Your task to perform on an android device: What's the weather today? Image 0: 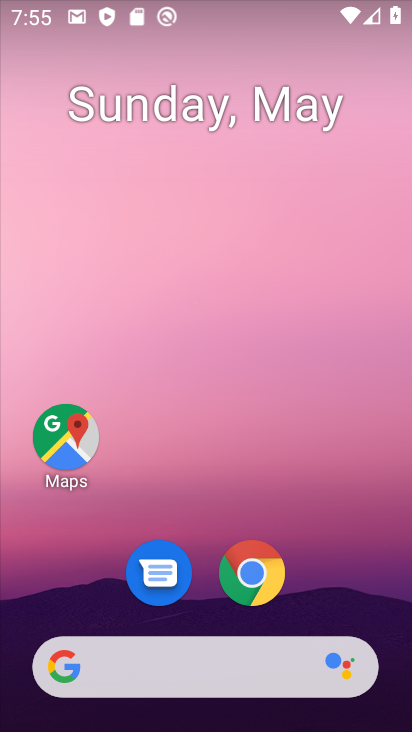
Step 0: click (195, 654)
Your task to perform on an android device: What's the weather today? Image 1: 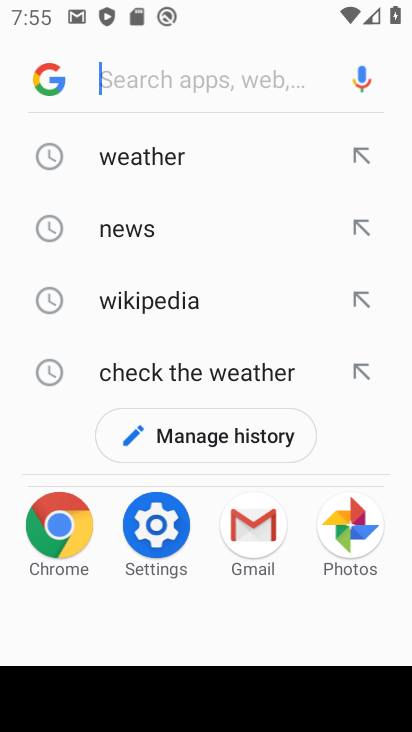
Step 1: click (120, 149)
Your task to perform on an android device: What's the weather today? Image 2: 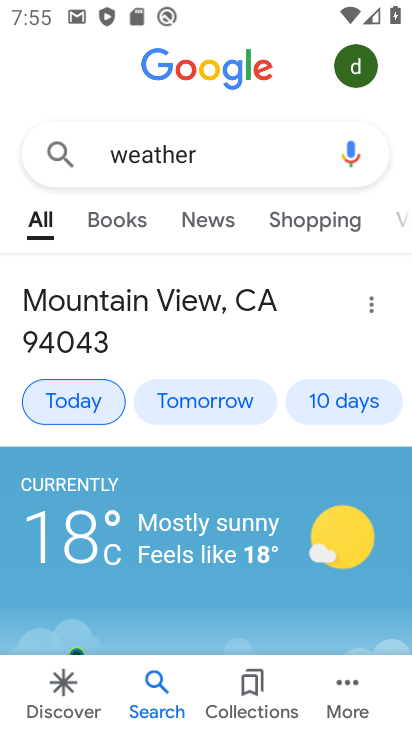
Step 2: click (87, 414)
Your task to perform on an android device: What's the weather today? Image 3: 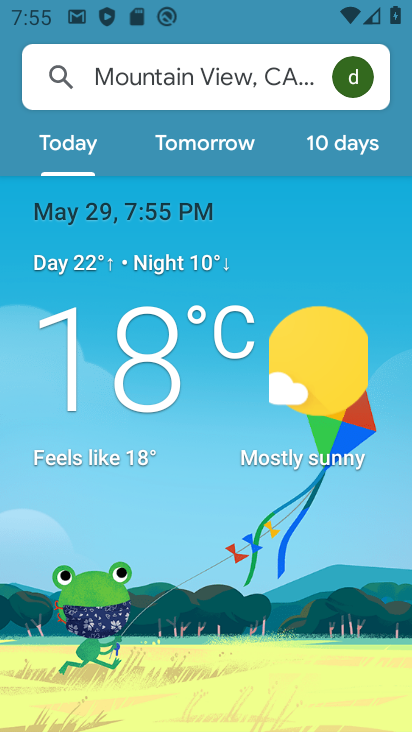
Step 3: task complete